Your task to perform on an android device: change timer sound Image 0: 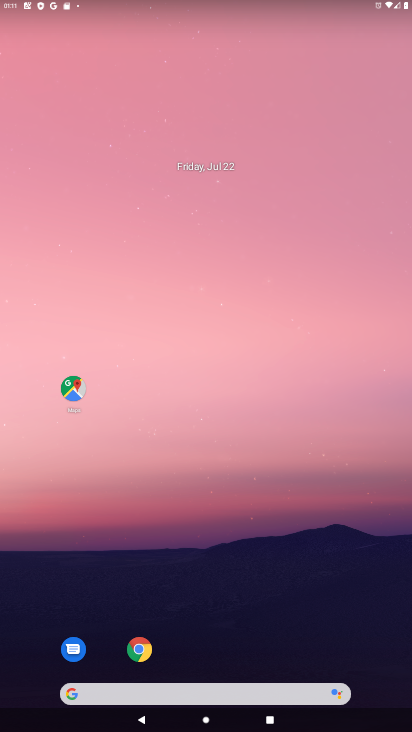
Step 0: drag from (267, 607) to (141, 198)
Your task to perform on an android device: change timer sound Image 1: 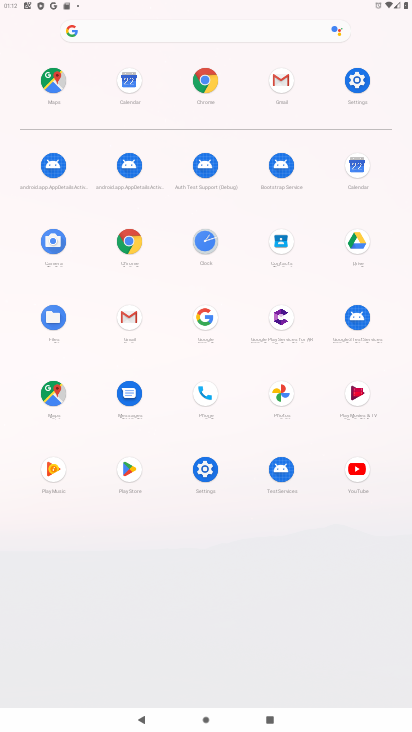
Step 1: click (205, 241)
Your task to perform on an android device: change timer sound Image 2: 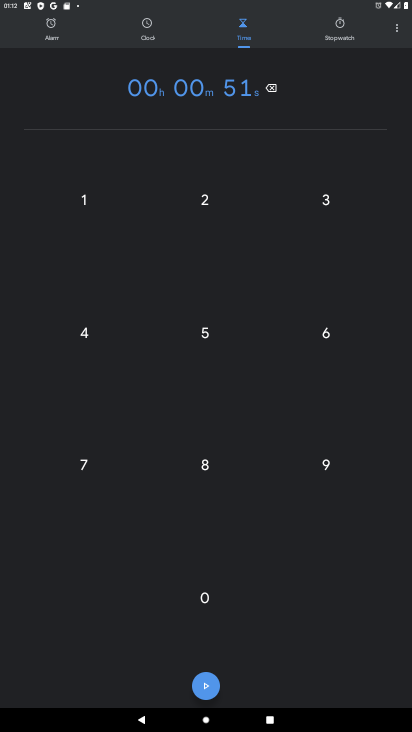
Step 2: click (398, 34)
Your task to perform on an android device: change timer sound Image 3: 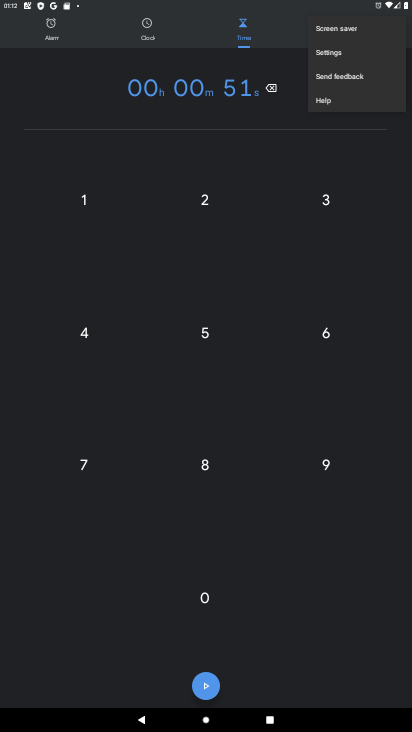
Step 3: click (326, 46)
Your task to perform on an android device: change timer sound Image 4: 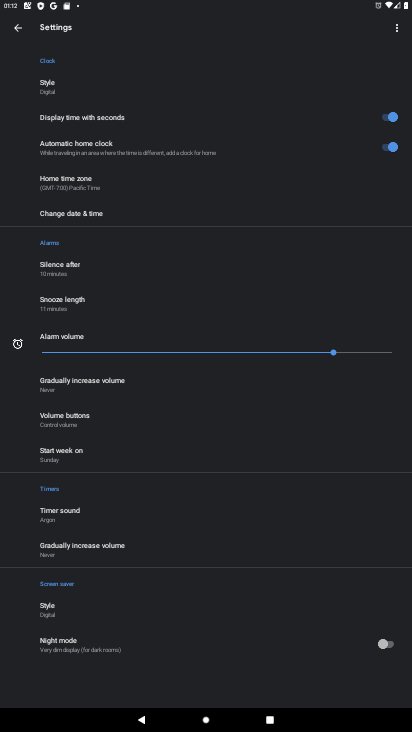
Step 4: click (73, 514)
Your task to perform on an android device: change timer sound Image 5: 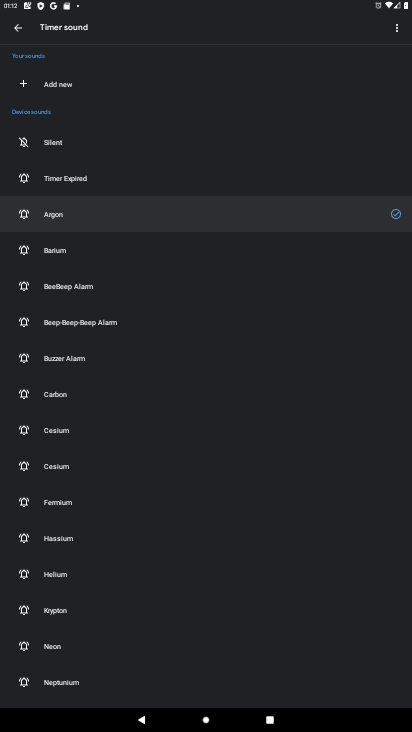
Step 5: click (54, 186)
Your task to perform on an android device: change timer sound Image 6: 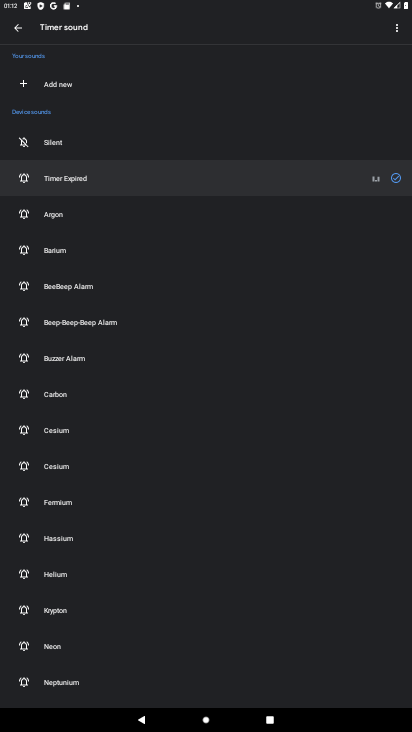
Step 6: task complete